Your task to perform on an android device: move a message to another label in the gmail app Image 0: 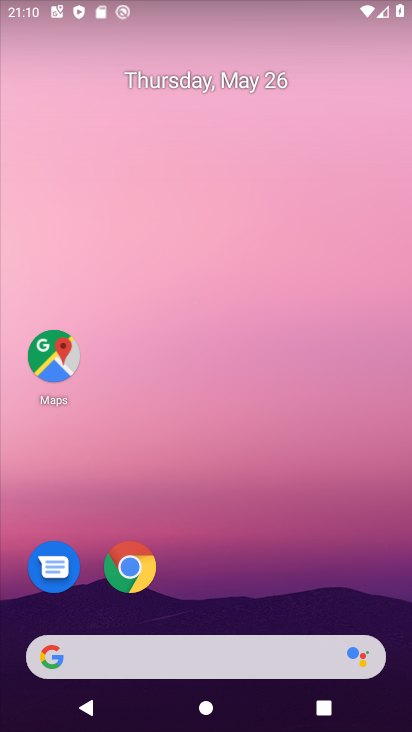
Step 0: drag from (226, 578) to (229, 214)
Your task to perform on an android device: move a message to another label in the gmail app Image 1: 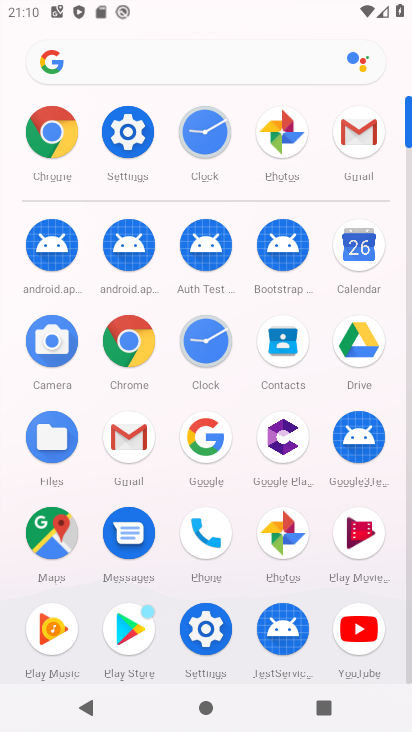
Step 1: click (354, 135)
Your task to perform on an android device: move a message to another label in the gmail app Image 2: 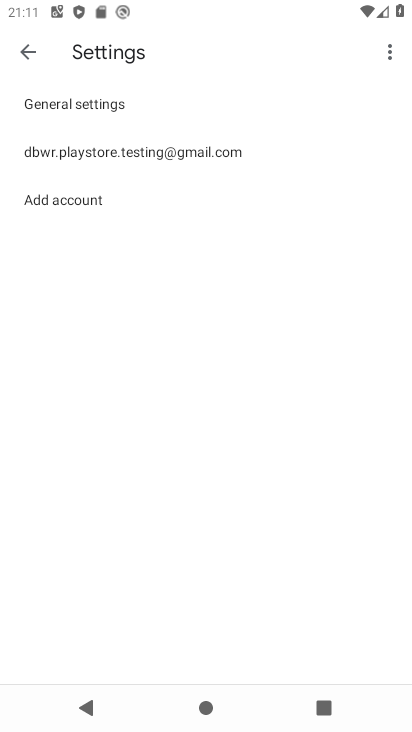
Step 2: click (30, 51)
Your task to perform on an android device: move a message to another label in the gmail app Image 3: 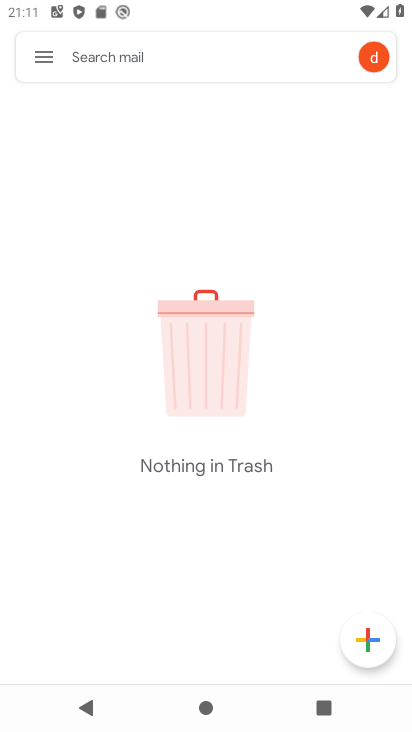
Step 3: click (47, 62)
Your task to perform on an android device: move a message to another label in the gmail app Image 4: 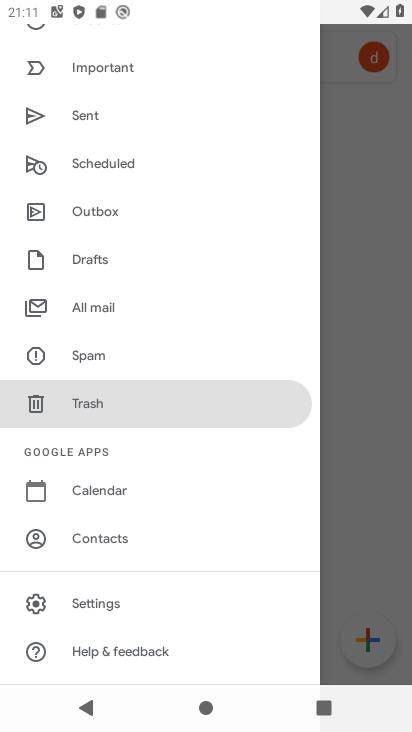
Step 4: click (92, 307)
Your task to perform on an android device: move a message to another label in the gmail app Image 5: 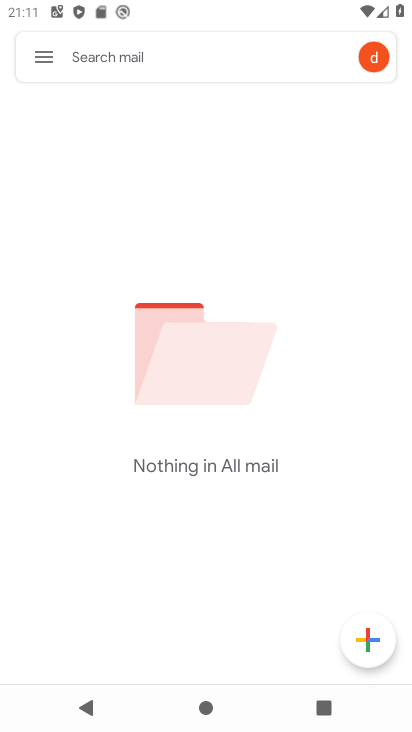
Step 5: task complete